Your task to perform on an android device: Toggle the flashlight Image 0: 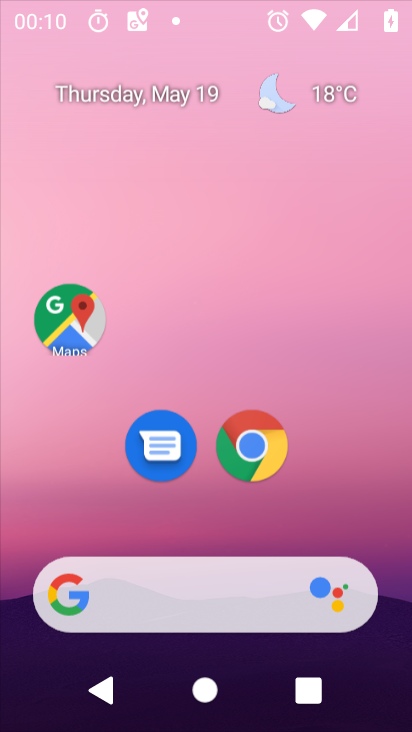
Step 0: press home button
Your task to perform on an android device: Toggle the flashlight Image 1: 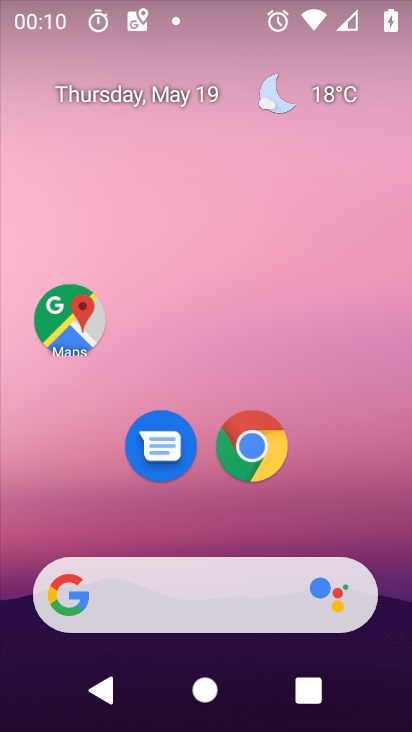
Step 1: task complete